Your task to perform on an android device: Open the web browser Image 0: 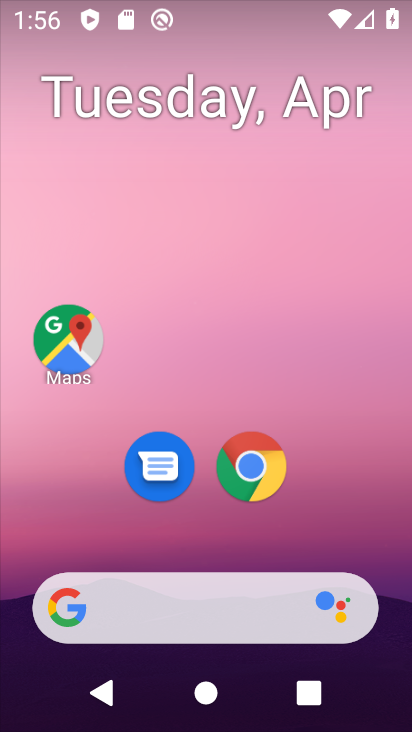
Step 0: drag from (272, 355) to (196, 12)
Your task to perform on an android device: Open the web browser Image 1: 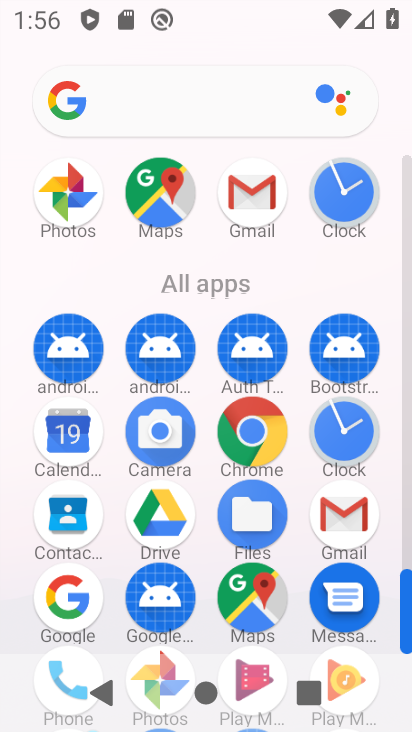
Step 1: drag from (6, 561) to (0, 246)
Your task to perform on an android device: Open the web browser Image 2: 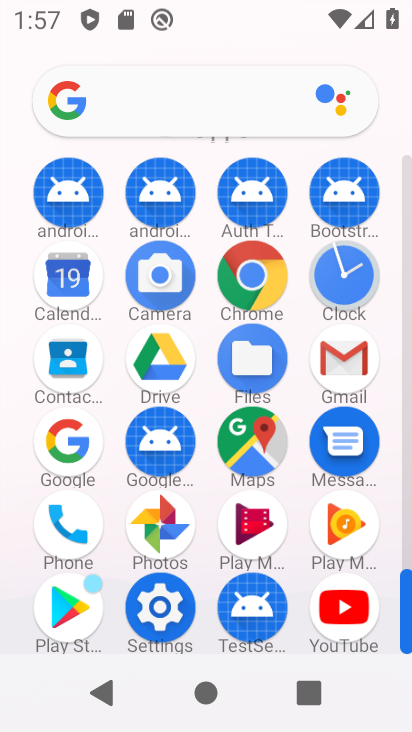
Step 2: click (252, 274)
Your task to perform on an android device: Open the web browser Image 3: 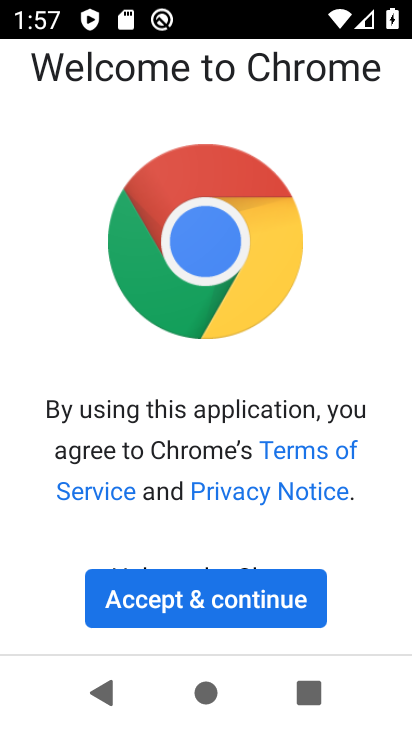
Step 3: click (247, 609)
Your task to perform on an android device: Open the web browser Image 4: 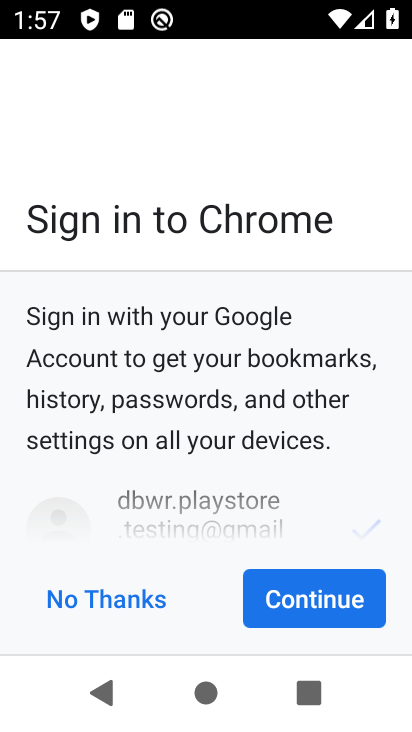
Step 4: click (323, 589)
Your task to perform on an android device: Open the web browser Image 5: 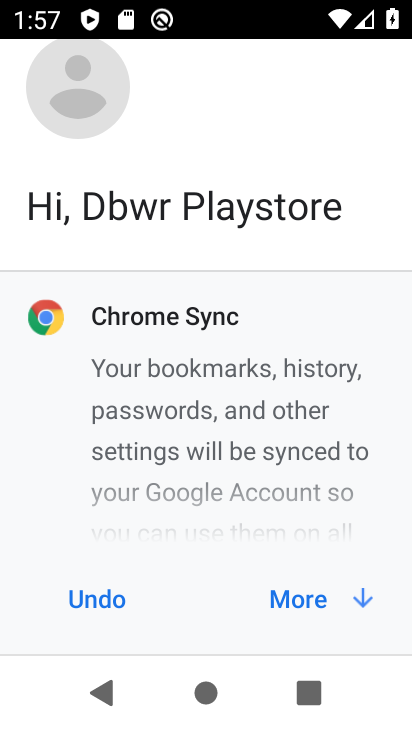
Step 5: click (287, 594)
Your task to perform on an android device: Open the web browser Image 6: 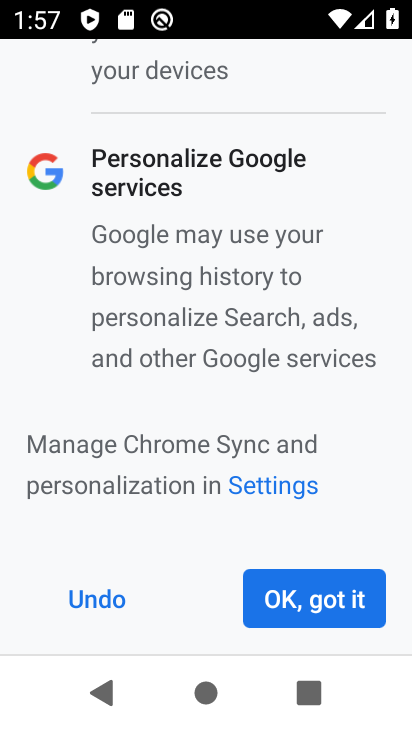
Step 6: click (263, 594)
Your task to perform on an android device: Open the web browser Image 7: 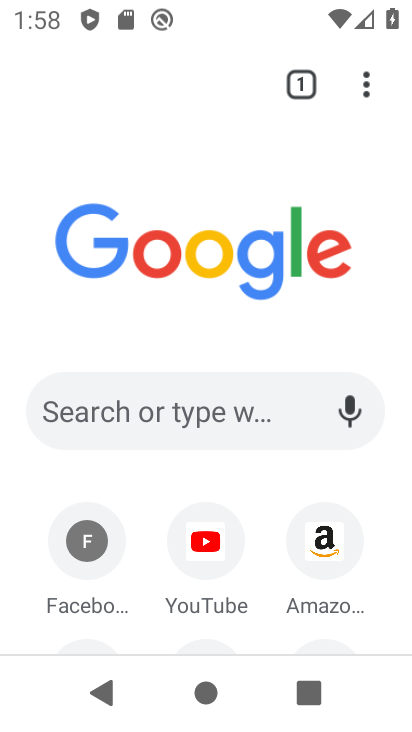
Step 7: task complete